Your task to perform on an android device: Do I have any events tomorrow? Image 0: 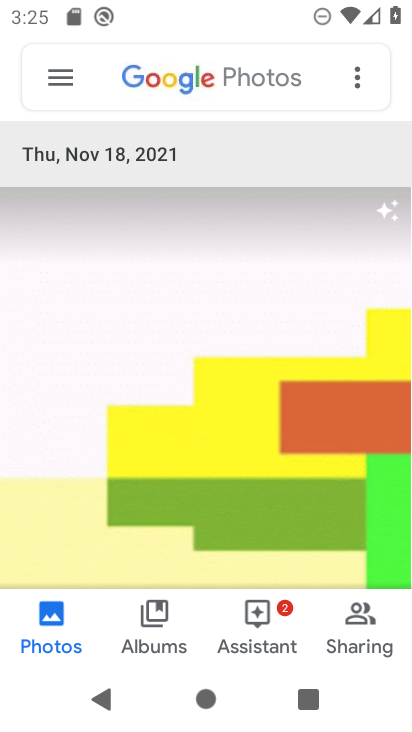
Step 0: press home button
Your task to perform on an android device: Do I have any events tomorrow? Image 1: 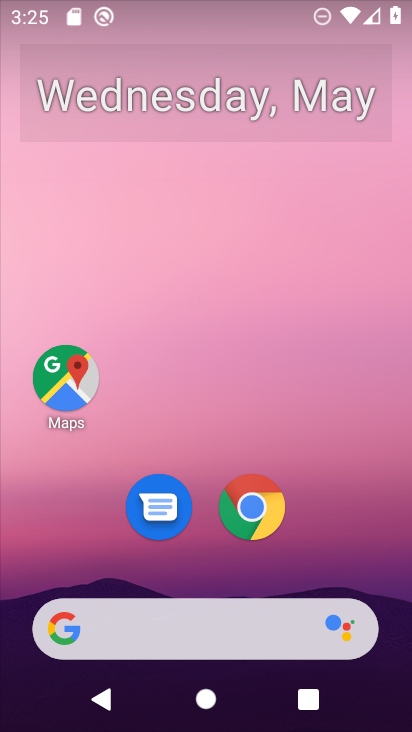
Step 1: drag from (205, 564) to (322, 44)
Your task to perform on an android device: Do I have any events tomorrow? Image 2: 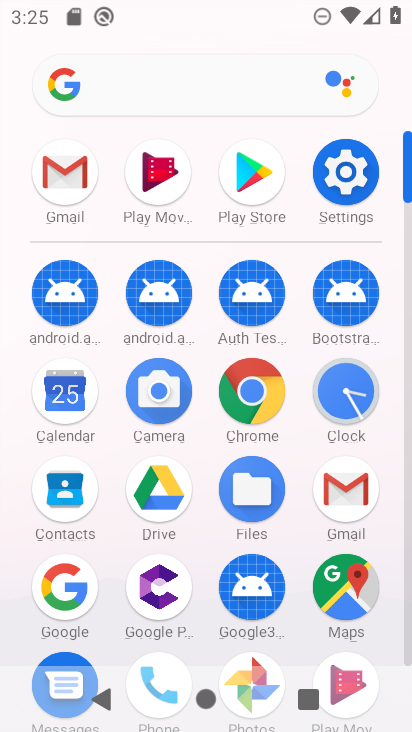
Step 2: click (47, 394)
Your task to perform on an android device: Do I have any events tomorrow? Image 3: 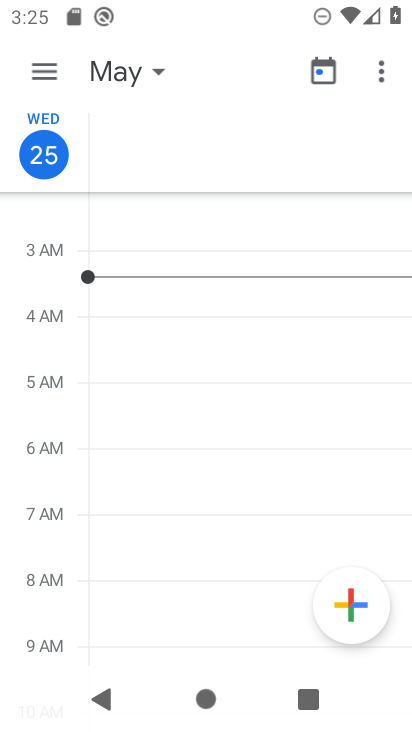
Step 3: click (48, 73)
Your task to perform on an android device: Do I have any events tomorrow? Image 4: 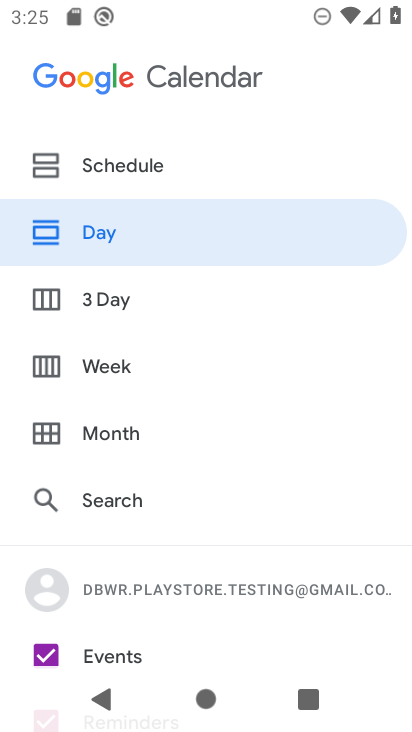
Step 4: click (156, 300)
Your task to perform on an android device: Do I have any events tomorrow? Image 5: 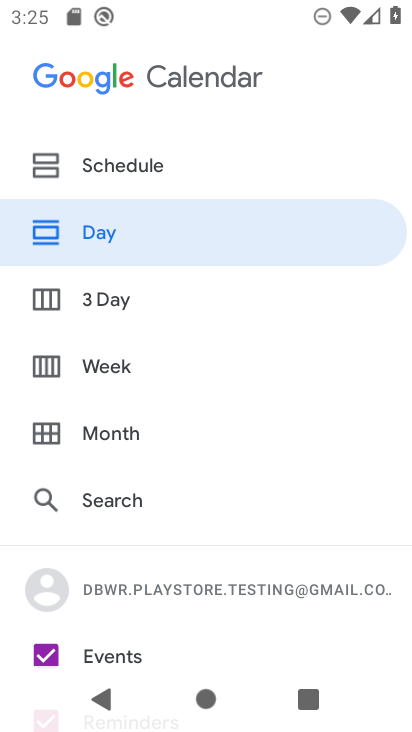
Step 5: click (155, 305)
Your task to perform on an android device: Do I have any events tomorrow? Image 6: 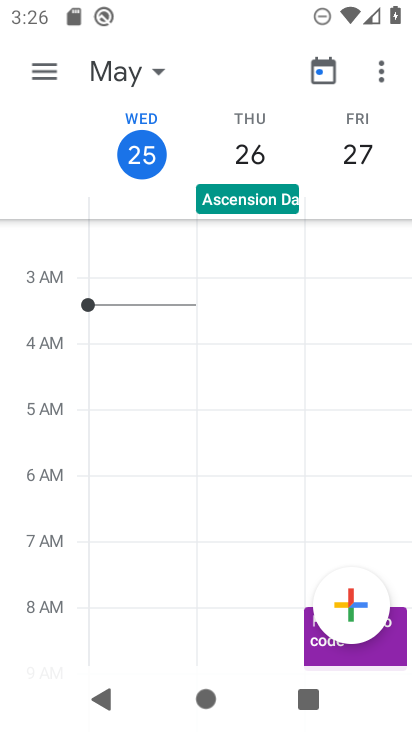
Step 6: task complete